Your task to perform on an android device: find photos in the google photos app Image 0: 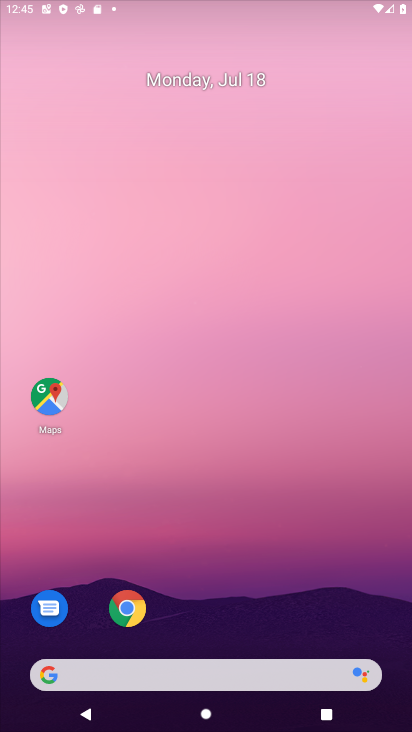
Step 0: drag from (275, 438) to (228, 2)
Your task to perform on an android device: find photos in the google photos app Image 1: 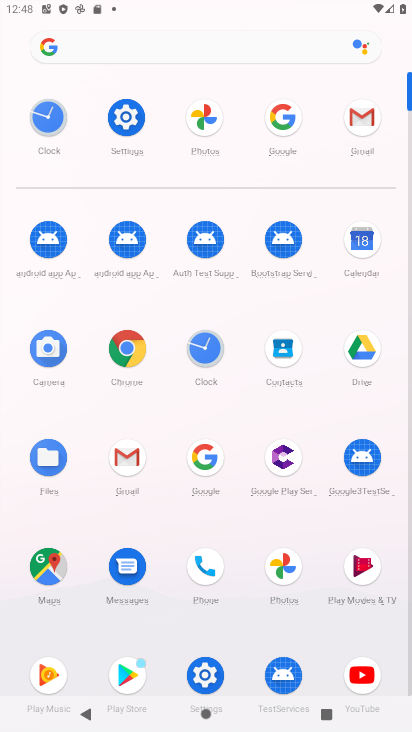
Step 1: click (277, 571)
Your task to perform on an android device: find photos in the google photos app Image 2: 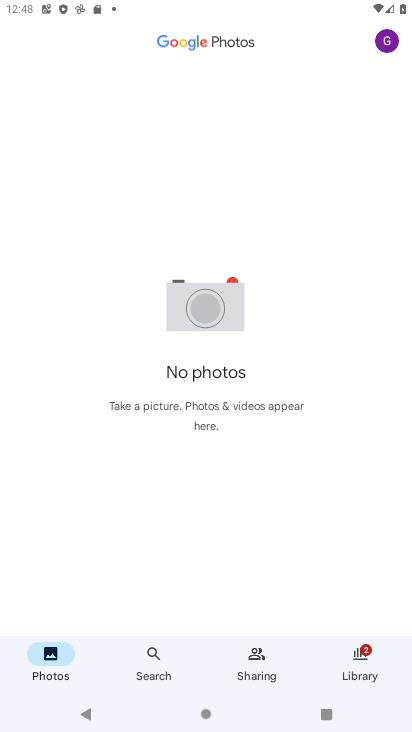
Step 2: task complete